Your task to perform on an android device: move an email to a new category in the gmail app Image 0: 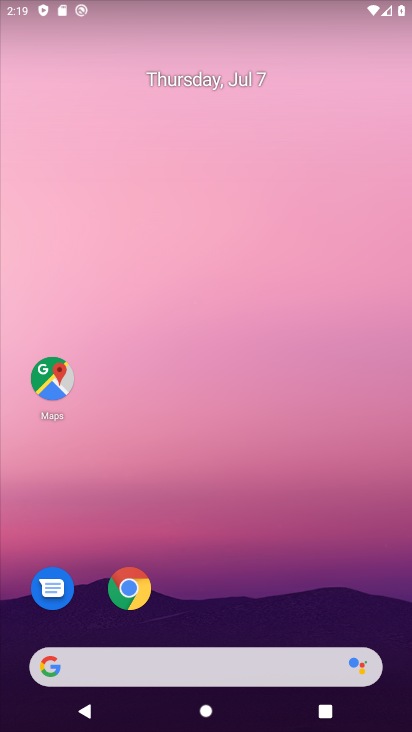
Step 0: drag from (227, 611) to (342, 76)
Your task to perform on an android device: move an email to a new category in the gmail app Image 1: 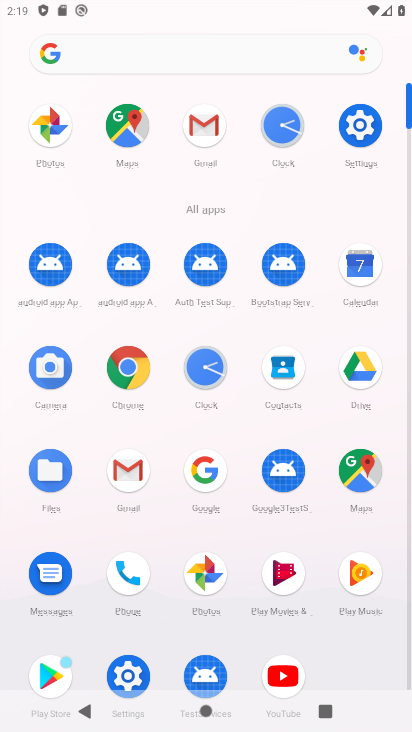
Step 1: click (132, 486)
Your task to perform on an android device: move an email to a new category in the gmail app Image 2: 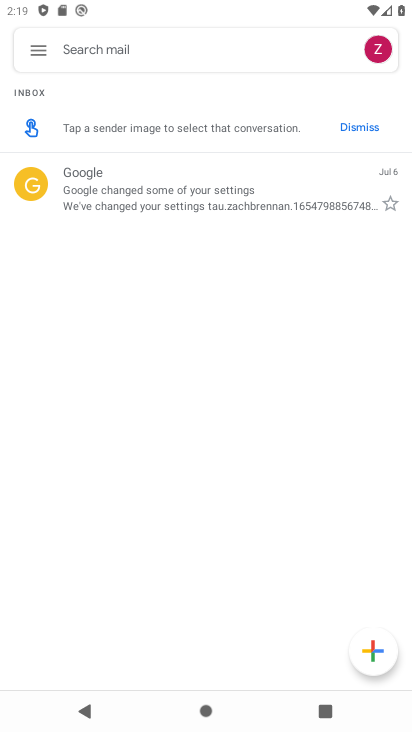
Step 2: click (147, 202)
Your task to perform on an android device: move an email to a new category in the gmail app Image 3: 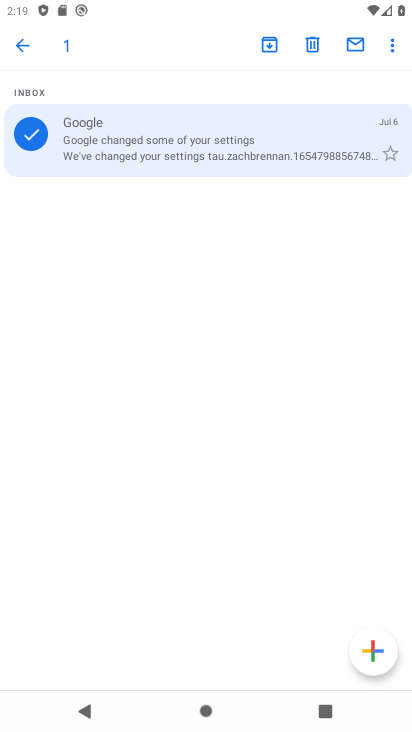
Step 3: click (393, 44)
Your task to perform on an android device: move an email to a new category in the gmail app Image 4: 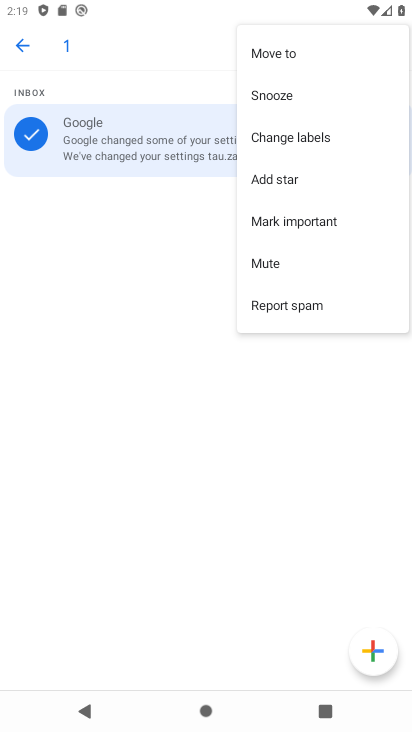
Step 4: click (336, 54)
Your task to perform on an android device: move an email to a new category in the gmail app Image 5: 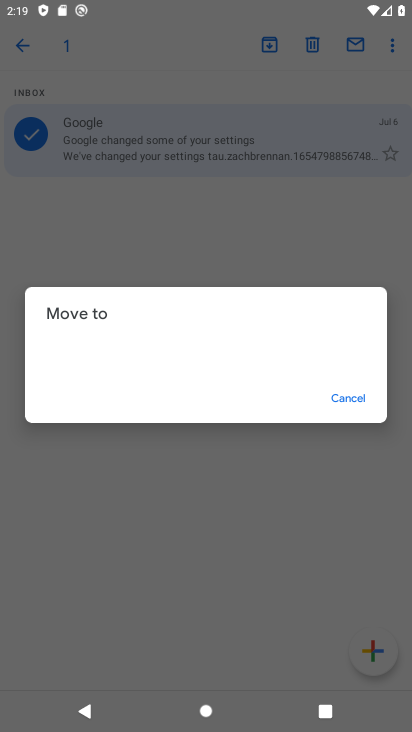
Step 5: task complete